Your task to perform on an android device: Open Google Chrome Image 0: 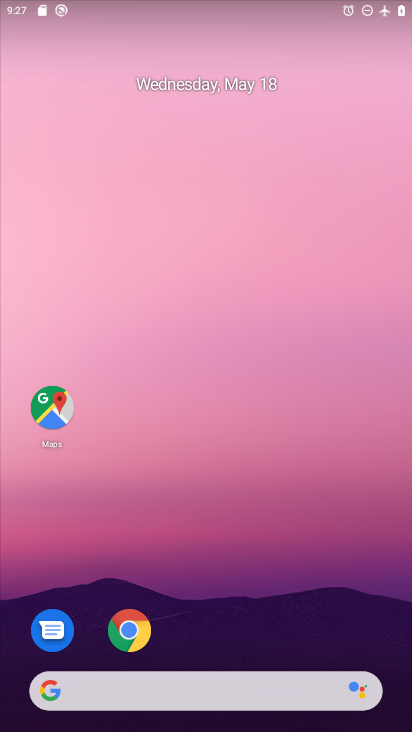
Step 0: click (136, 639)
Your task to perform on an android device: Open Google Chrome Image 1: 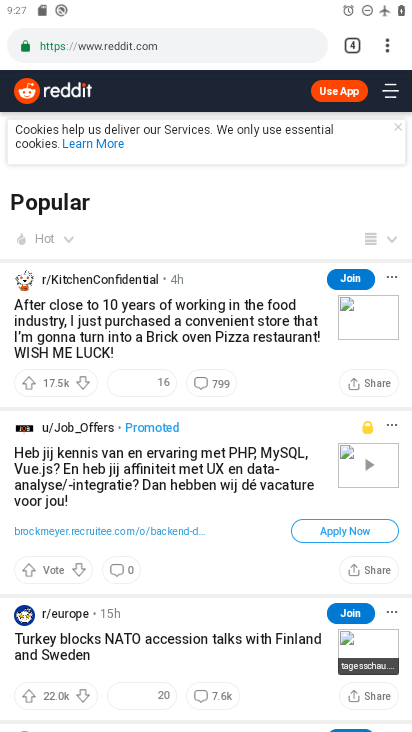
Step 1: task complete